Your task to perform on an android device: change text size in settings app Image 0: 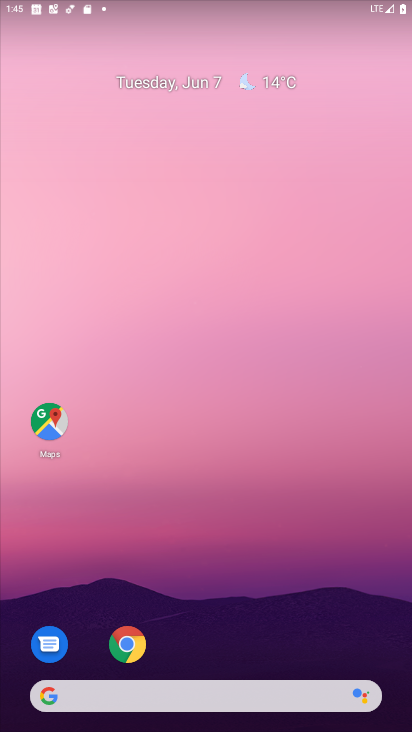
Step 0: drag from (280, 657) to (349, 4)
Your task to perform on an android device: change text size in settings app Image 1: 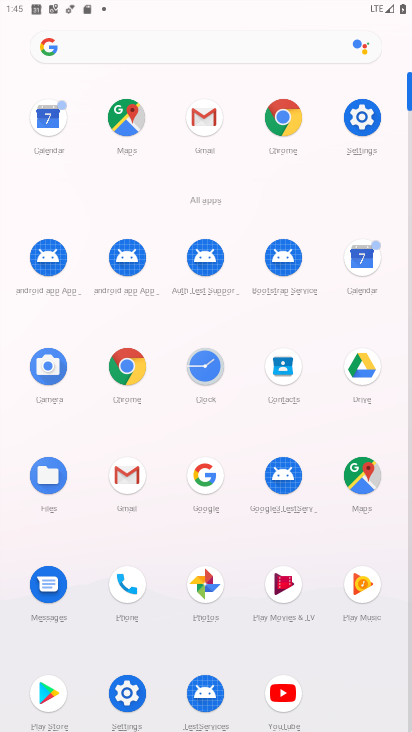
Step 1: click (366, 126)
Your task to perform on an android device: change text size in settings app Image 2: 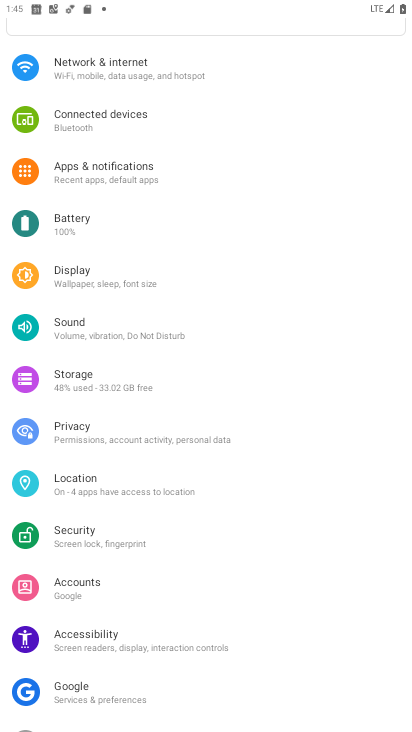
Step 2: click (109, 278)
Your task to perform on an android device: change text size in settings app Image 3: 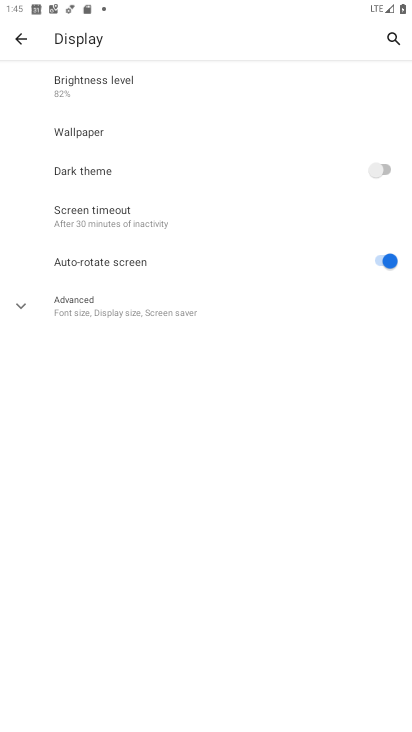
Step 3: click (118, 311)
Your task to perform on an android device: change text size in settings app Image 4: 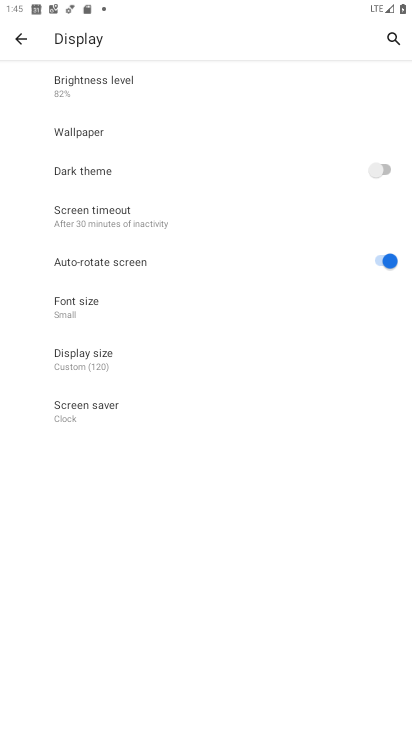
Step 4: click (92, 308)
Your task to perform on an android device: change text size in settings app Image 5: 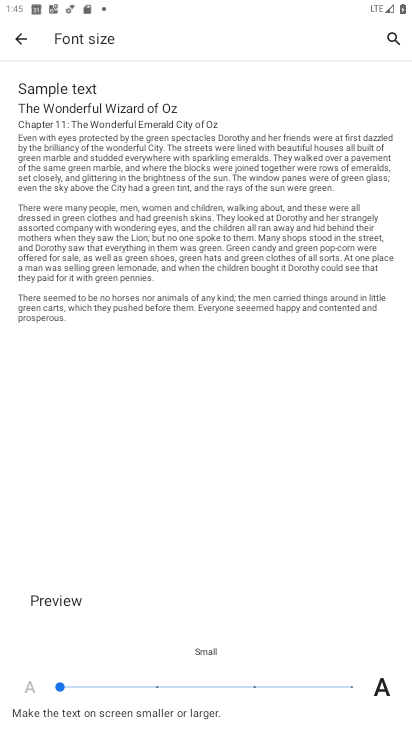
Step 5: click (152, 688)
Your task to perform on an android device: change text size in settings app Image 6: 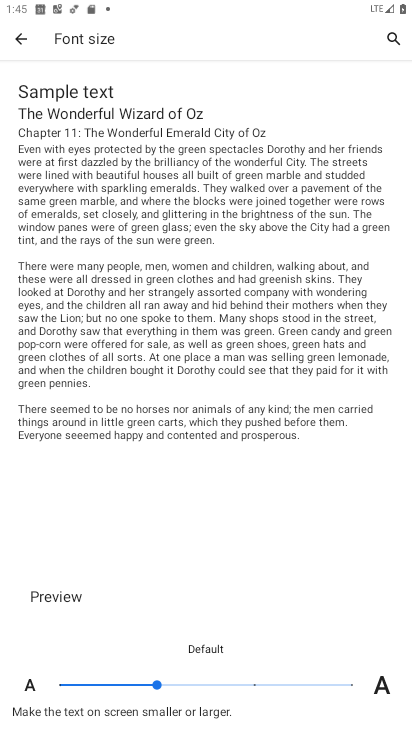
Step 6: task complete